Your task to perform on an android device: turn off smart reply in the gmail app Image 0: 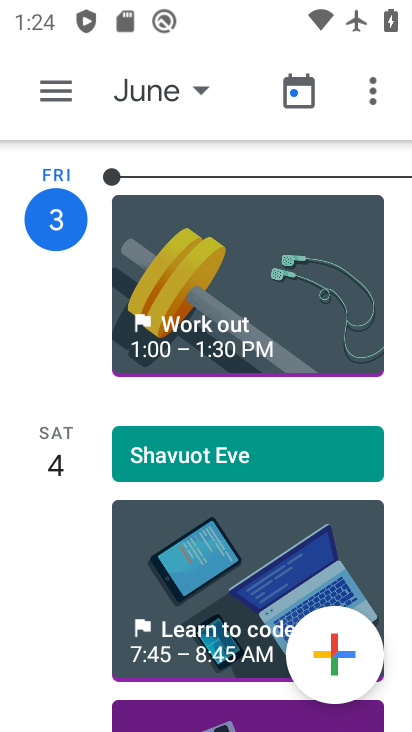
Step 0: press home button
Your task to perform on an android device: turn off smart reply in the gmail app Image 1: 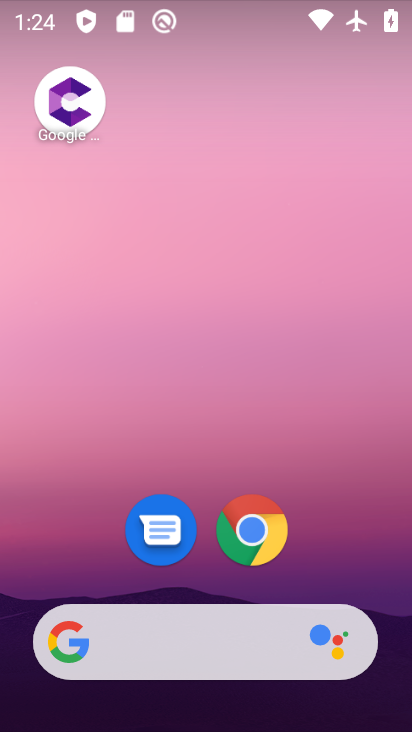
Step 1: drag from (309, 584) to (214, 53)
Your task to perform on an android device: turn off smart reply in the gmail app Image 2: 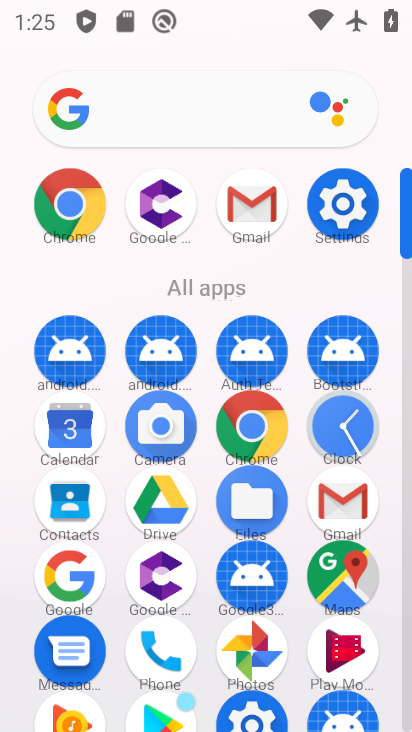
Step 2: click (331, 513)
Your task to perform on an android device: turn off smart reply in the gmail app Image 3: 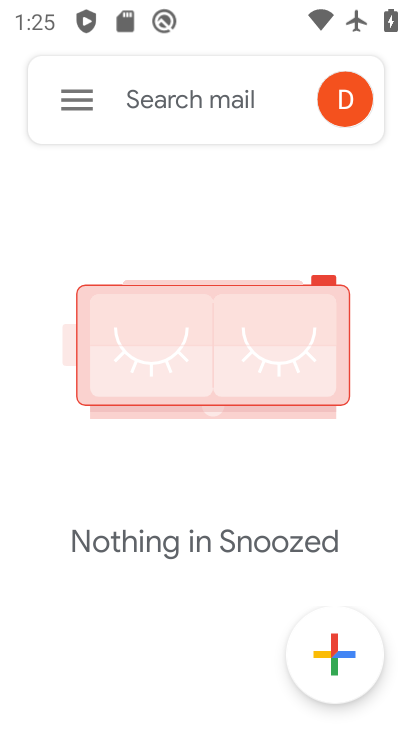
Step 3: click (77, 97)
Your task to perform on an android device: turn off smart reply in the gmail app Image 4: 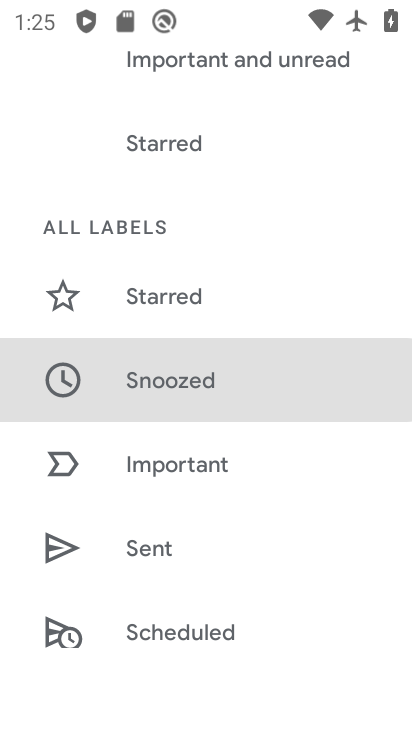
Step 4: drag from (148, 602) to (137, 166)
Your task to perform on an android device: turn off smart reply in the gmail app Image 5: 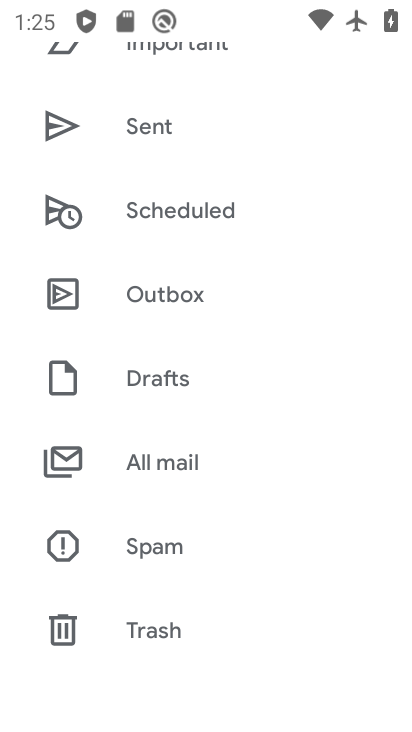
Step 5: drag from (193, 611) to (186, 211)
Your task to perform on an android device: turn off smart reply in the gmail app Image 6: 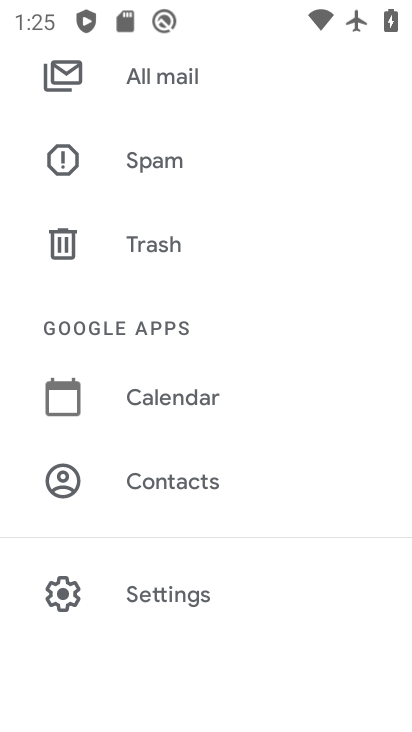
Step 6: click (189, 601)
Your task to perform on an android device: turn off smart reply in the gmail app Image 7: 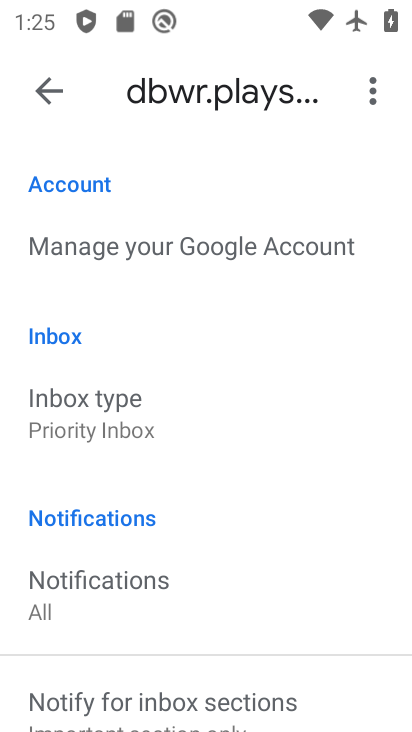
Step 7: drag from (139, 646) to (171, 79)
Your task to perform on an android device: turn off smart reply in the gmail app Image 8: 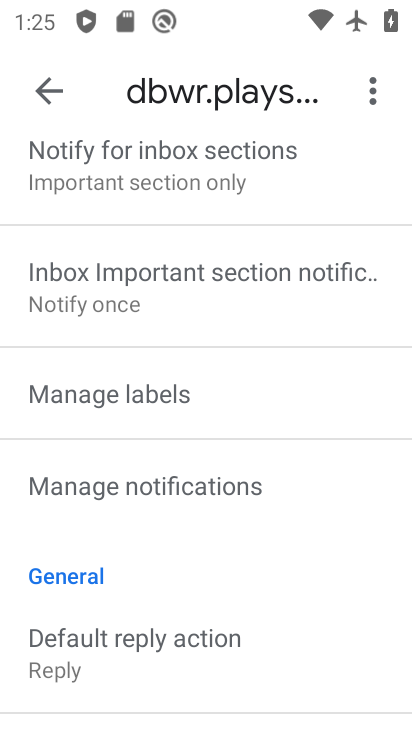
Step 8: drag from (157, 562) to (148, 104)
Your task to perform on an android device: turn off smart reply in the gmail app Image 9: 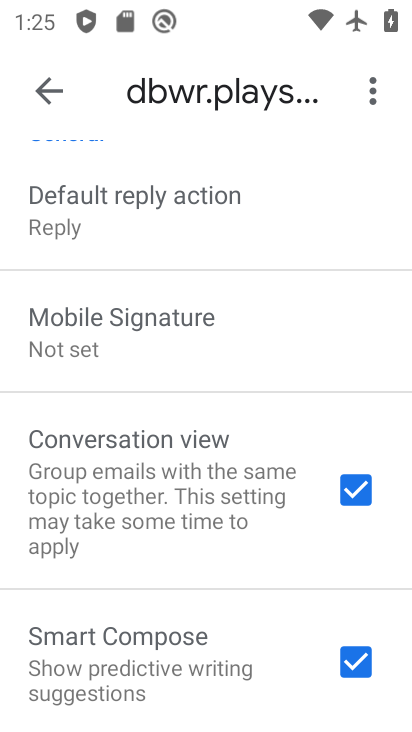
Step 9: drag from (128, 564) to (161, 215)
Your task to perform on an android device: turn off smart reply in the gmail app Image 10: 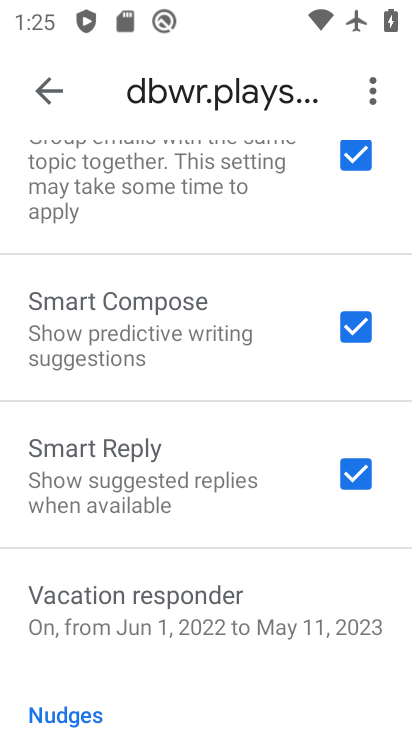
Step 10: click (359, 476)
Your task to perform on an android device: turn off smart reply in the gmail app Image 11: 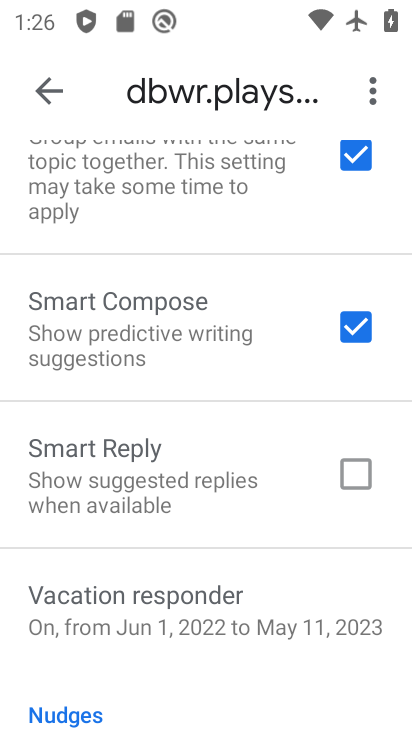
Step 11: task complete